Your task to perform on an android device: Go to CNN.com Image 0: 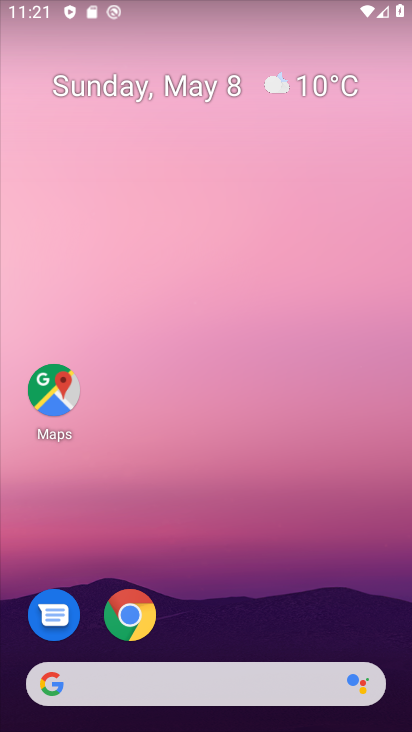
Step 0: drag from (295, 707) to (304, 136)
Your task to perform on an android device: Go to CNN.com Image 1: 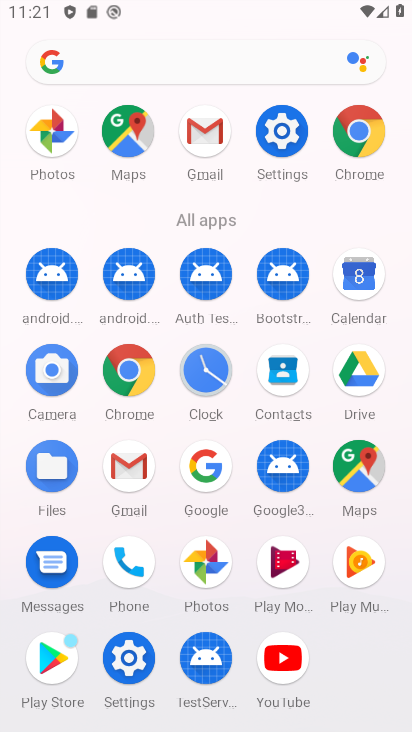
Step 1: click (345, 143)
Your task to perform on an android device: Go to CNN.com Image 2: 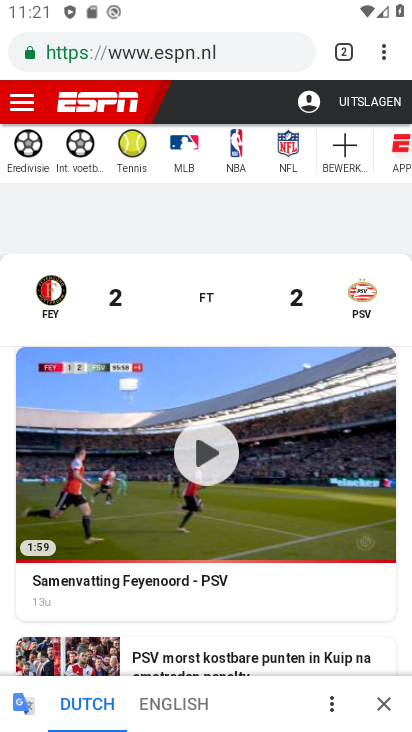
Step 2: task complete